Your task to perform on an android device: turn off notifications settings in the gmail app Image 0: 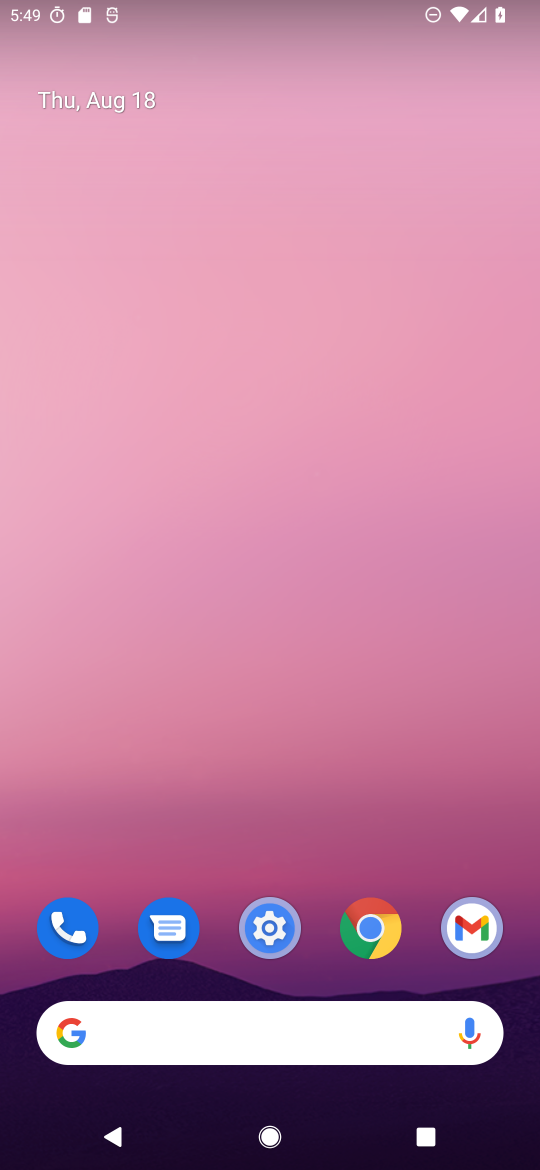
Step 0: drag from (265, 823) to (393, 36)
Your task to perform on an android device: turn off notifications settings in the gmail app Image 1: 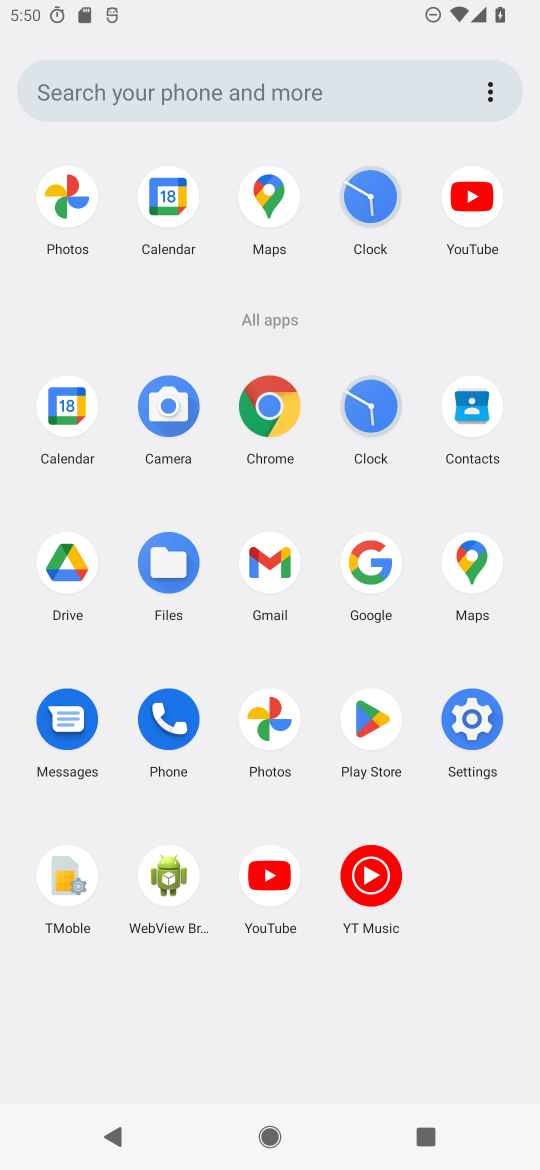
Step 1: click (280, 558)
Your task to perform on an android device: turn off notifications settings in the gmail app Image 2: 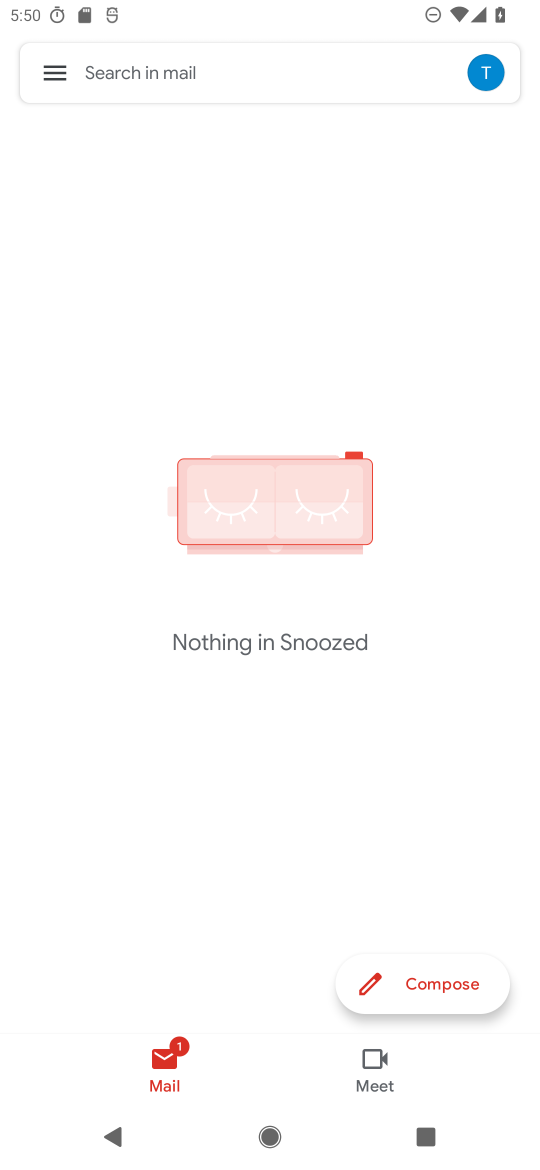
Step 2: click (49, 75)
Your task to perform on an android device: turn off notifications settings in the gmail app Image 3: 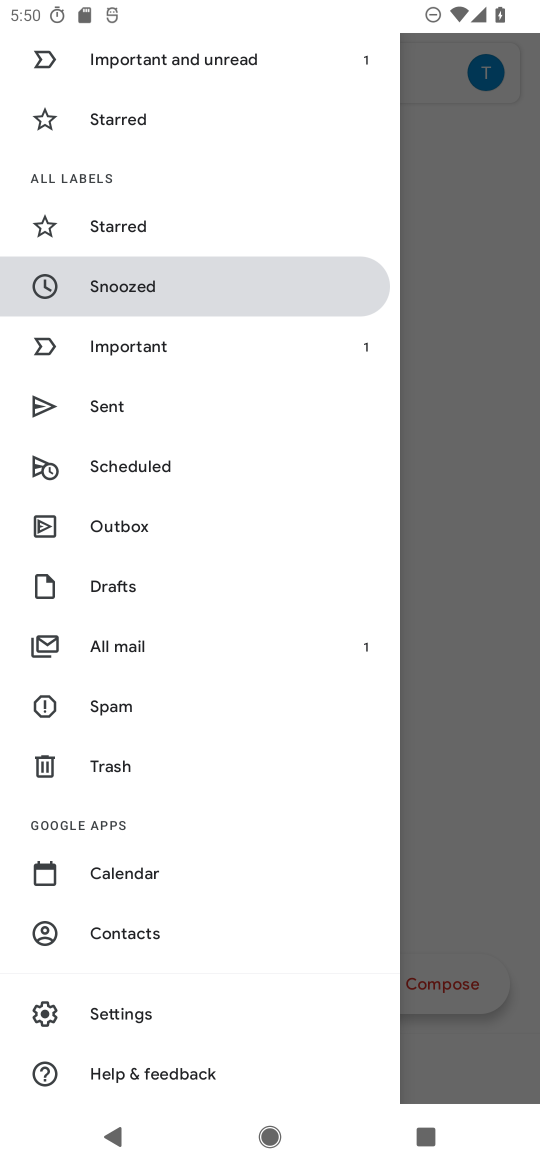
Step 3: click (139, 1015)
Your task to perform on an android device: turn off notifications settings in the gmail app Image 4: 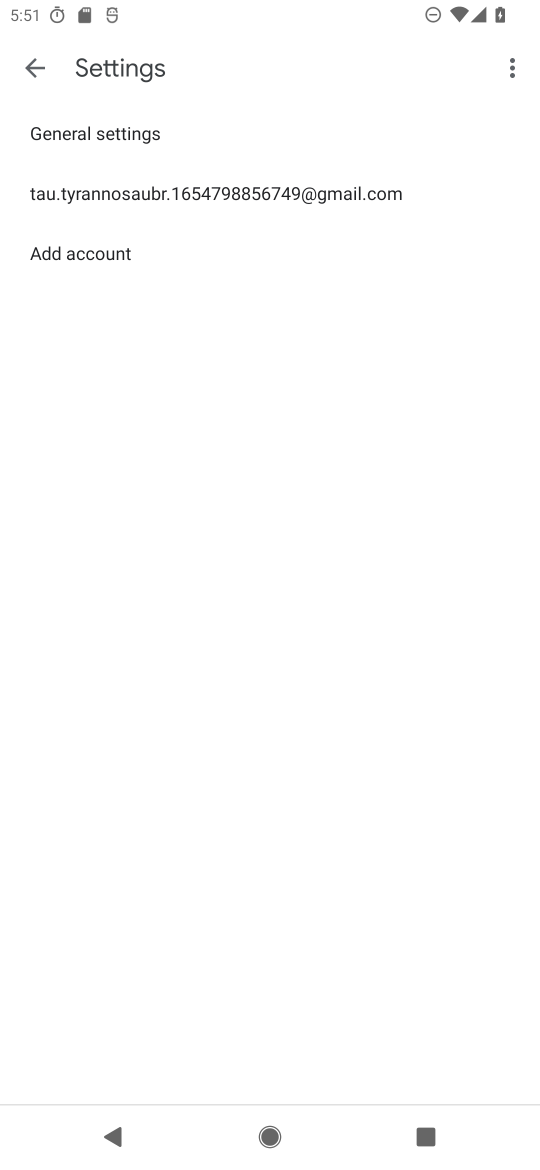
Step 4: click (351, 200)
Your task to perform on an android device: turn off notifications settings in the gmail app Image 5: 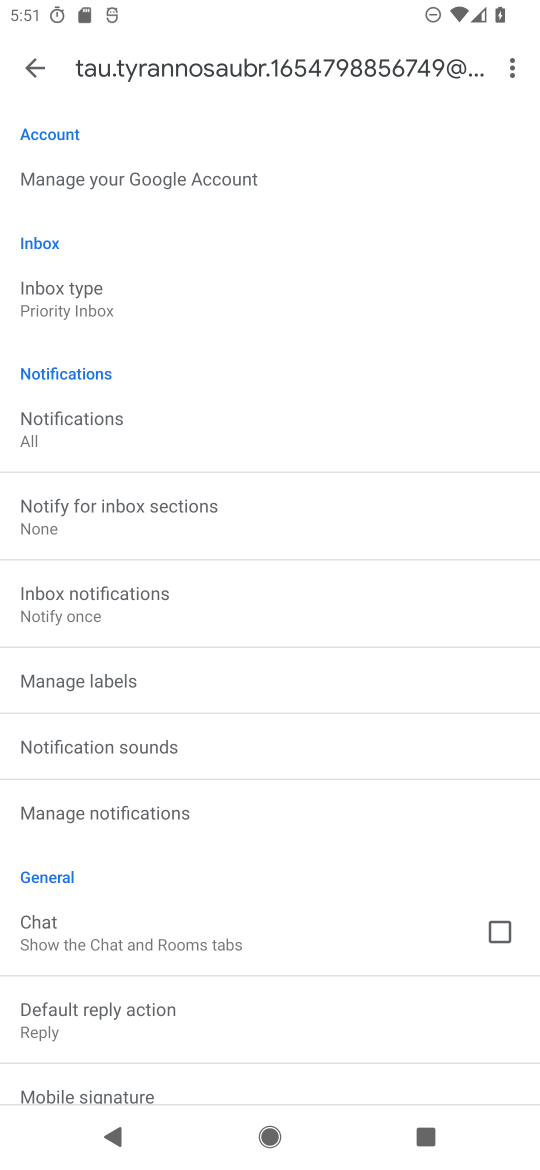
Step 5: click (133, 807)
Your task to perform on an android device: turn off notifications settings in the gmail app Image 6: 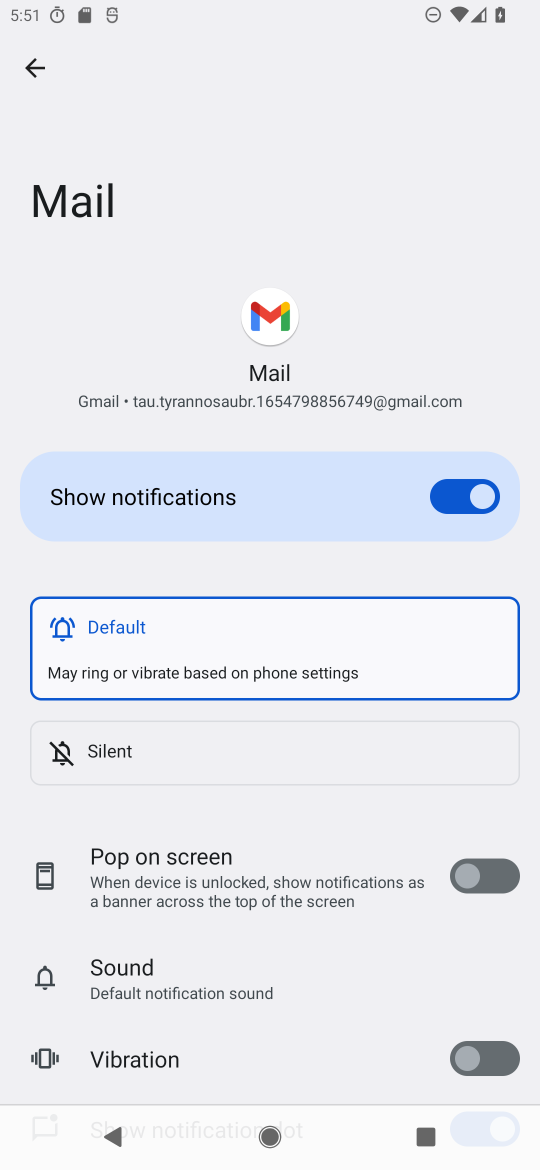
Step 6: click (455, 495)
Your task to perform on an android device: turn off notifications settings in the gmail app Image 7: 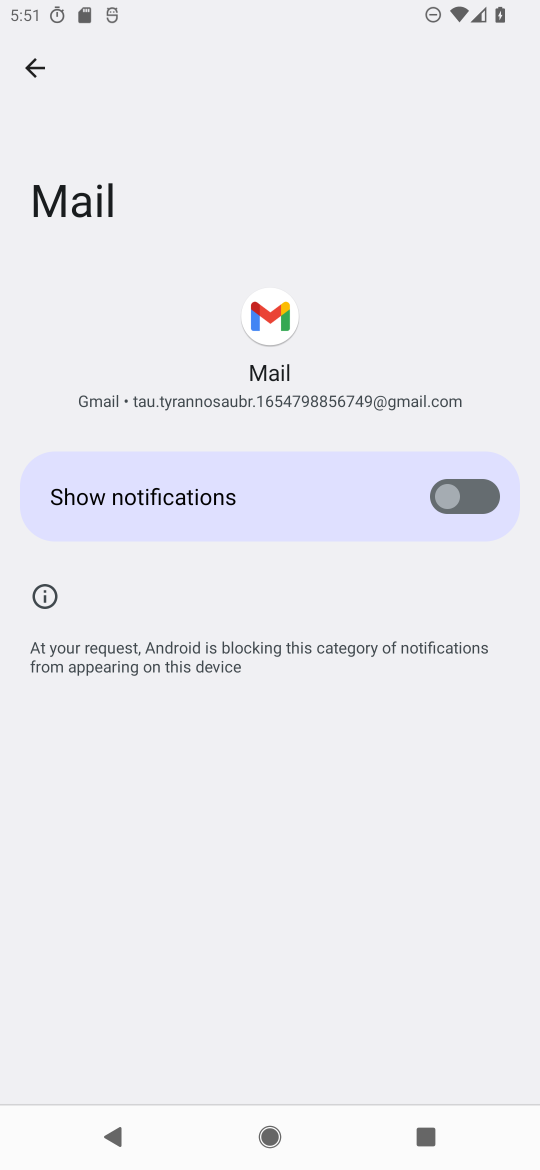
Step 7: task complete